Your task to perform on an android device: read, delete, or share a saved page in the chrome app Image 0: 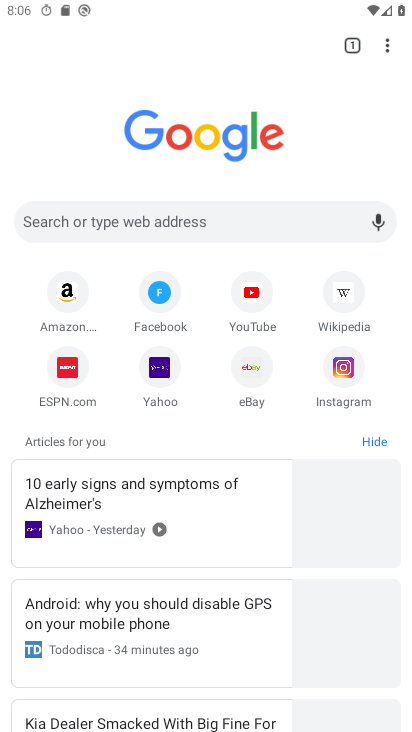
Step 0: press home button
Your task to perform on an android device: read, delete, or share a saved page in the chrome app Image 1: 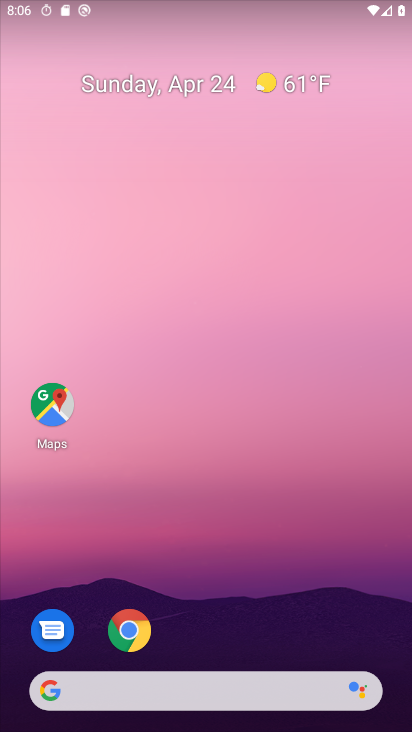
Step 1: drag from (371, 611) to (364, 121)
Your task to perform on an android device: read, delete, or share a saved page in the chrome app Image 2: 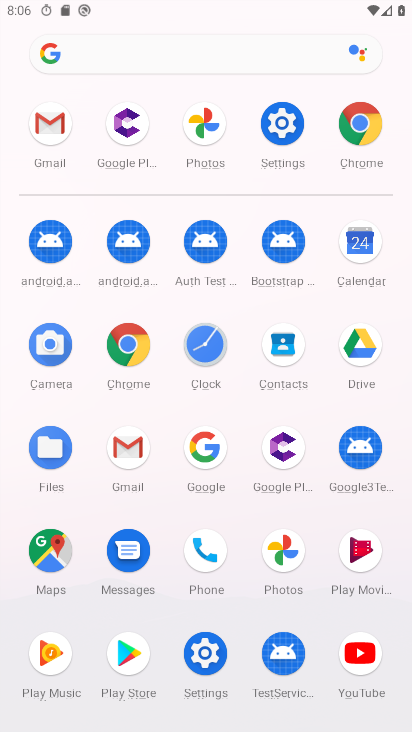
Step 2: click (363, 129)
Your task to perform on an android device: read, delete, or share a saved page in the chrome app Image 3: 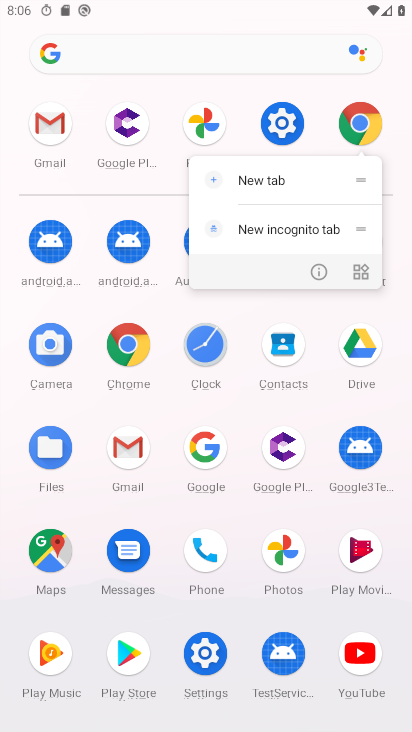
Step 3: click (358, 127)
Your task to perform on an android device: read, delete, or share a saved page in the chrome app Image 4: 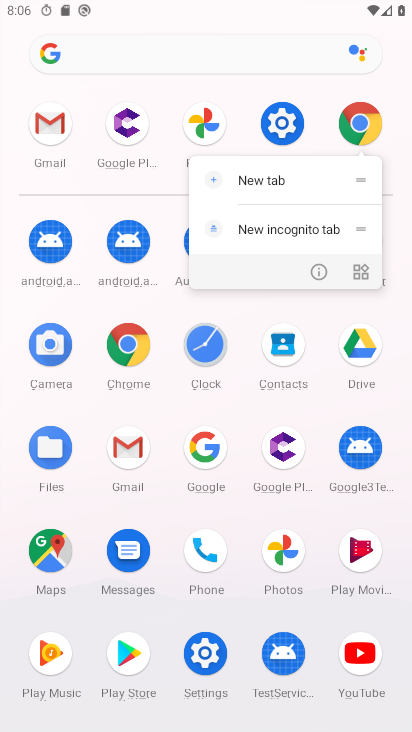
Step 4: click (363, 126)
Your task to perform on an android device: read, delete, or share a saved page in the chrome app Image 5: 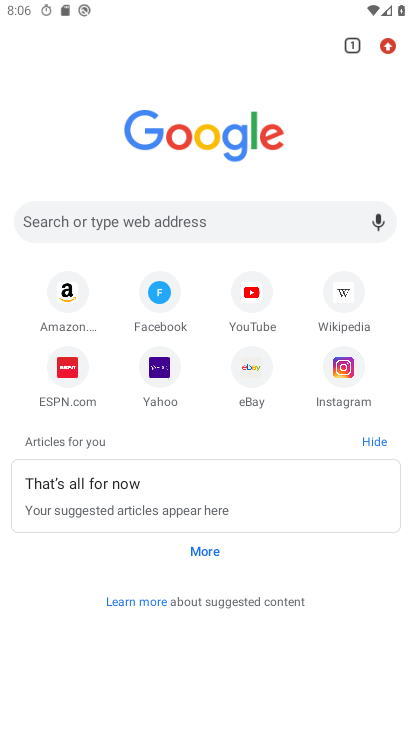
Step 5: click (391, 47)
Your task to perform on an android device: read, delete, or share a saved page in the chrome app Image 6: 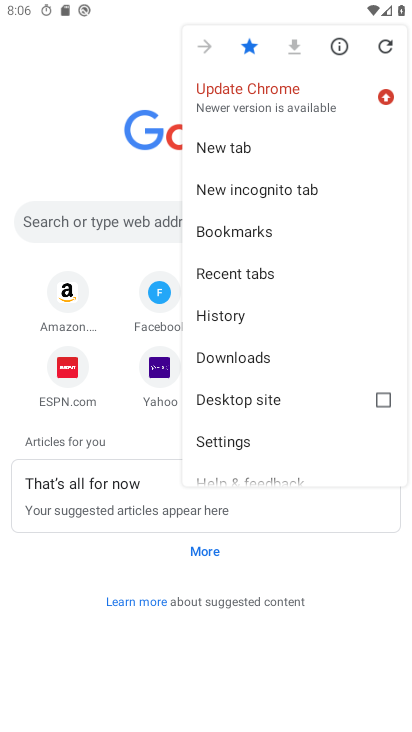
Step 6: click (300, 359)
Your task to perform on an android device: read, delete, or share a saved page in the chrome app Image 7: 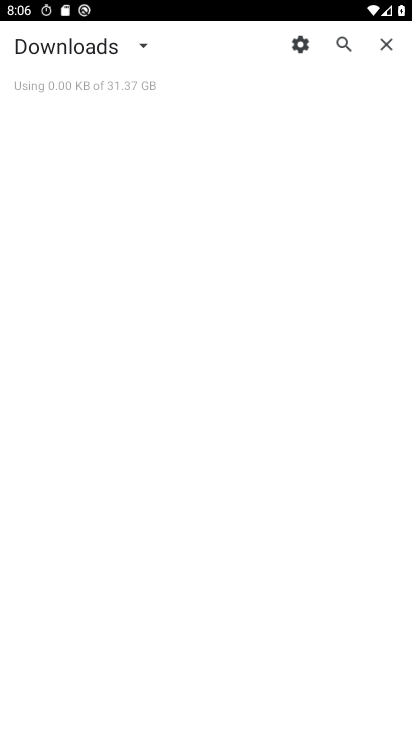
Step 7: click (144, 43)
Your task to perform on an android device: read, delete, or share a saved page in the chrome app Image 8: 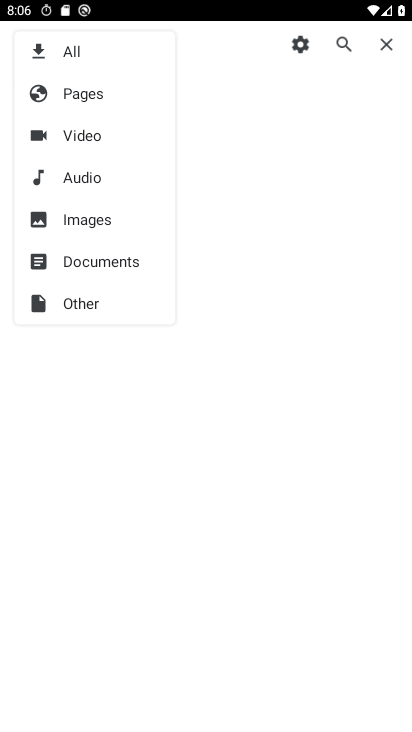
Step 8: click (102, 100)
Your task to perform on an android device: read, delete, or share a saved page in the chrome app Image 9: 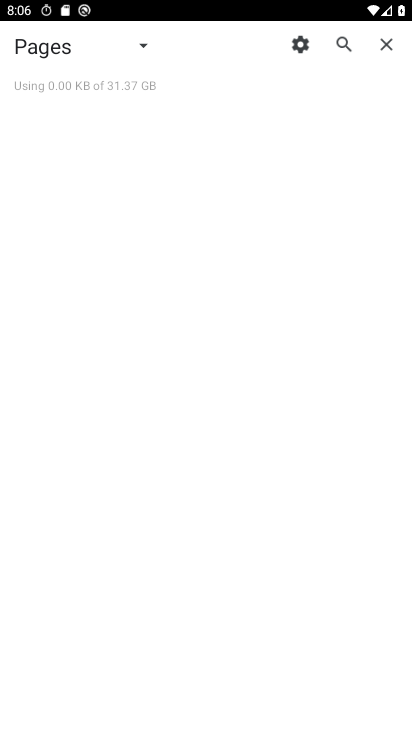
Step 9: task complete